Your task to perform on an android device: add a label to a message in the gmail app Image 0: 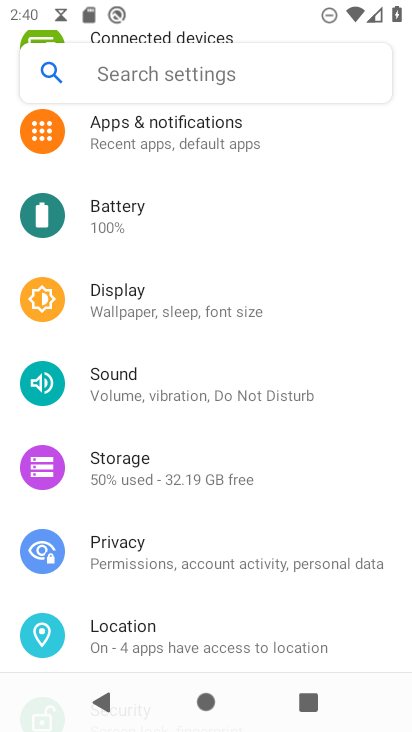
Step 0: press home button
Your task to perform on an android device: add a label to a message in the gmail app Image 1: 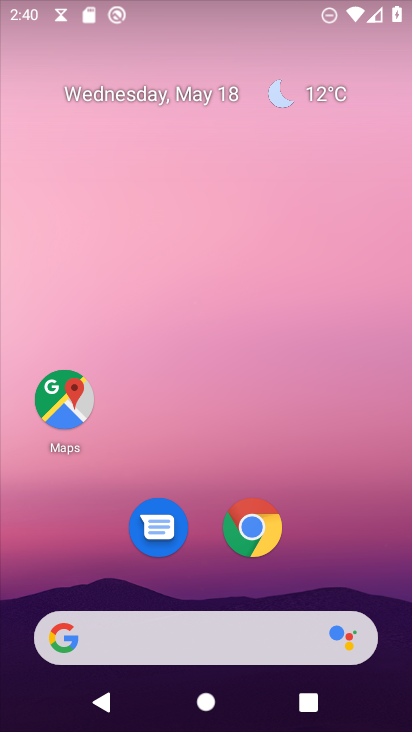
Step 1: drag from (335, 414) to (246, 56)
Your task to perform on an android device: add a label to a message in the gmail app Image 2: 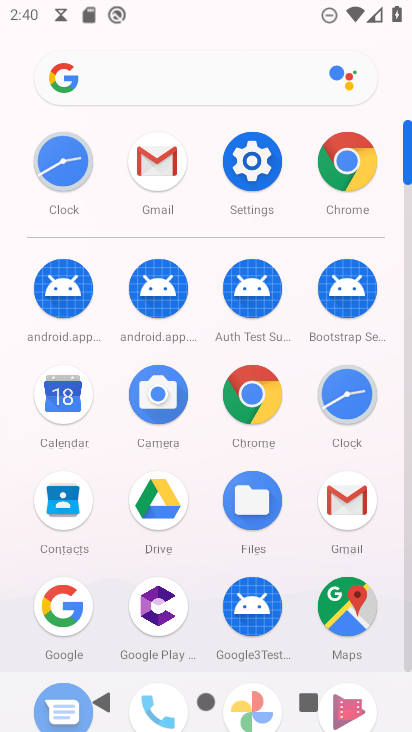
Step 2: click (347, 502)
Your task to perform on an android device: add a label to a message in the gmail app Image 3: 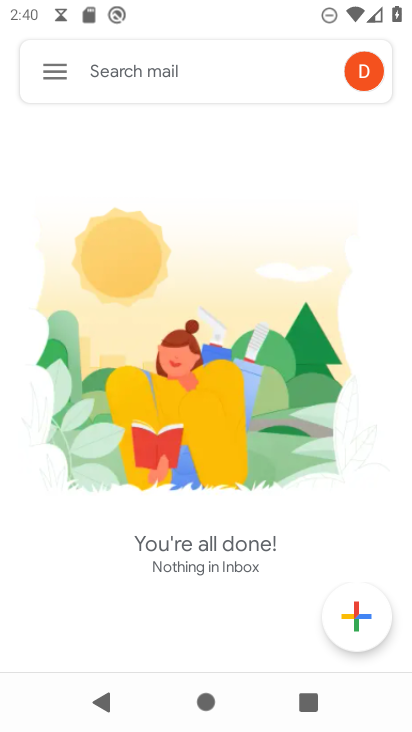
Step 3: click (48, 69)
Your task to perform on an android device: add a label to a message in the gmail app Image 4: 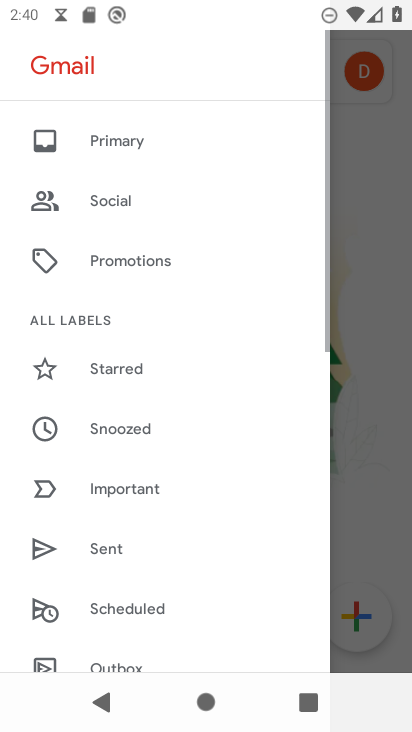
Step 4: drag from (169, 597) to (179, 203)
Your task to perform on an android device: add a label to a message in the gmail app Image 5: 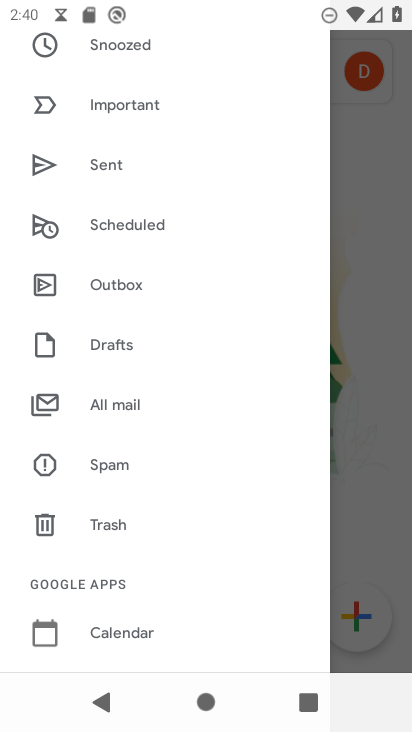
Step 5: click (147, 407)
Your task to perform on an android device: add a label to a message in the gmail app Image 6: 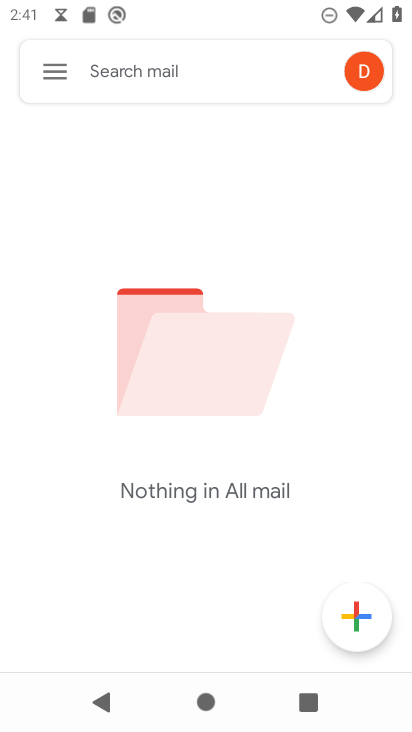
Step 6: task complete